Your task to perform on an android device: Go to settings Image 0: 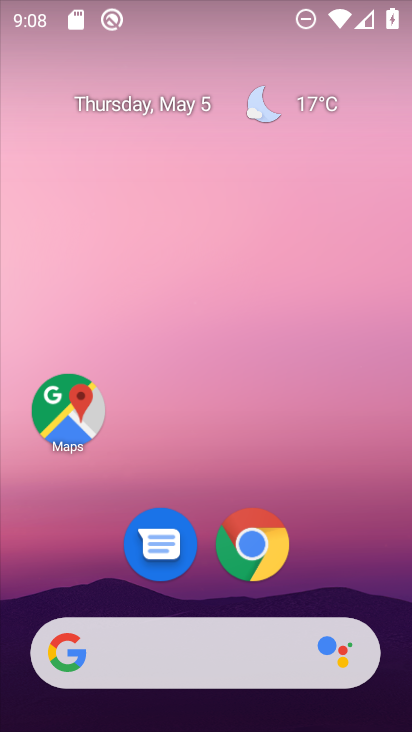
Step 0: drag from (384, 639) to (241, 61)
Your task to perform on an android device: Go to settings Image 1: 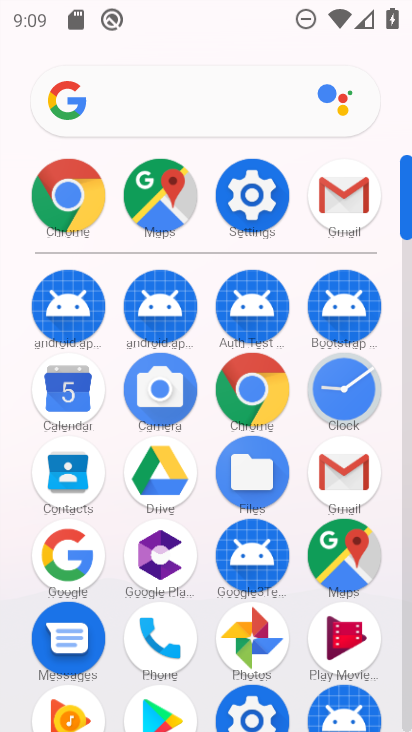
Step 1: click (255, 187)
Your task to perform on an android device: Go to settings Image 2: 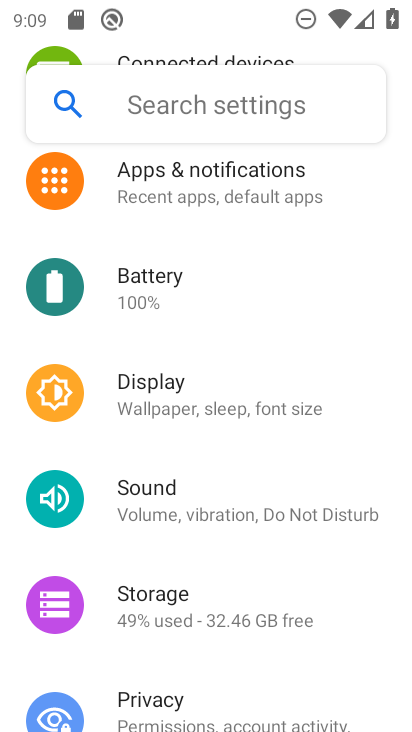
Step 2: task complete